Your task to perform on an android device: install app "Paramount+ | Peak Streaming" Image 0: 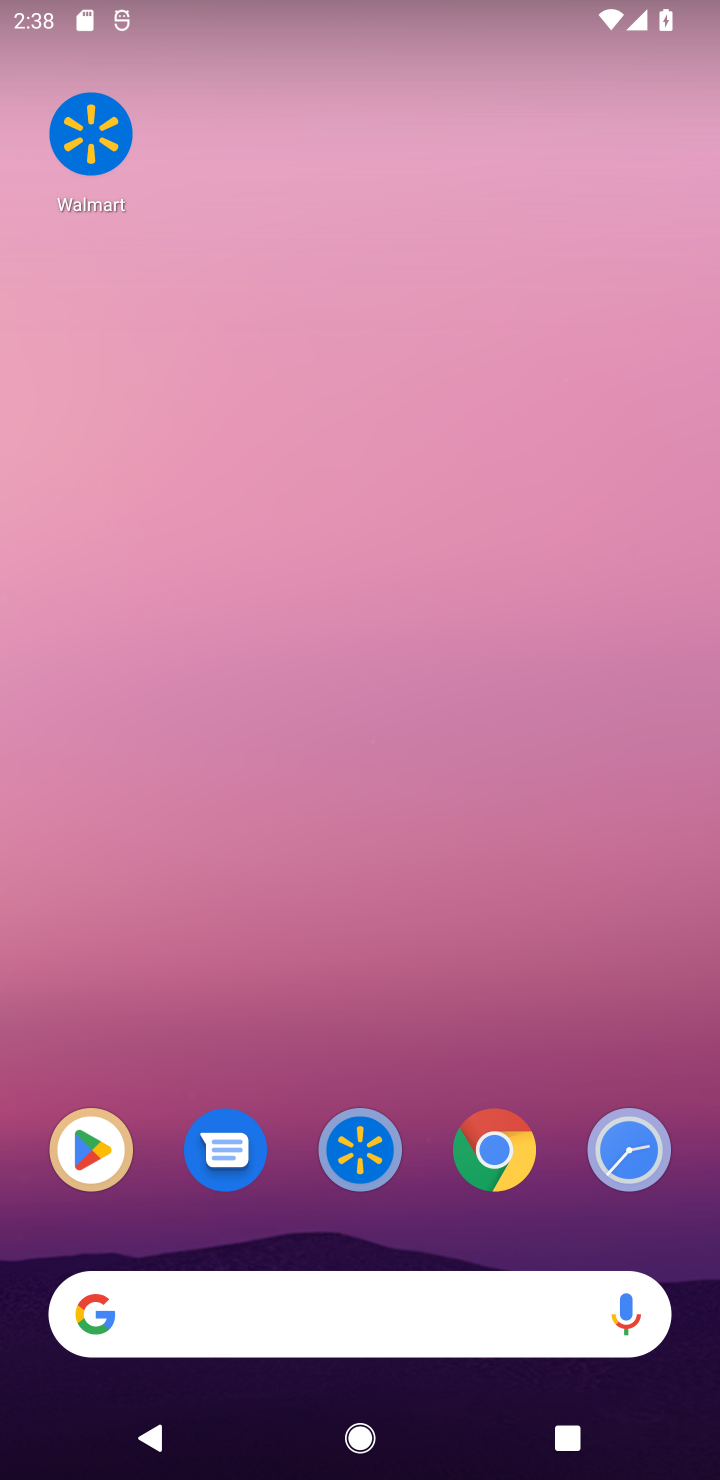
Step 0: drag from (401, 1271) to (393, 105)
Your task to perform on an android device: install app "Paramount+ | Peak Streaming" Image 1: 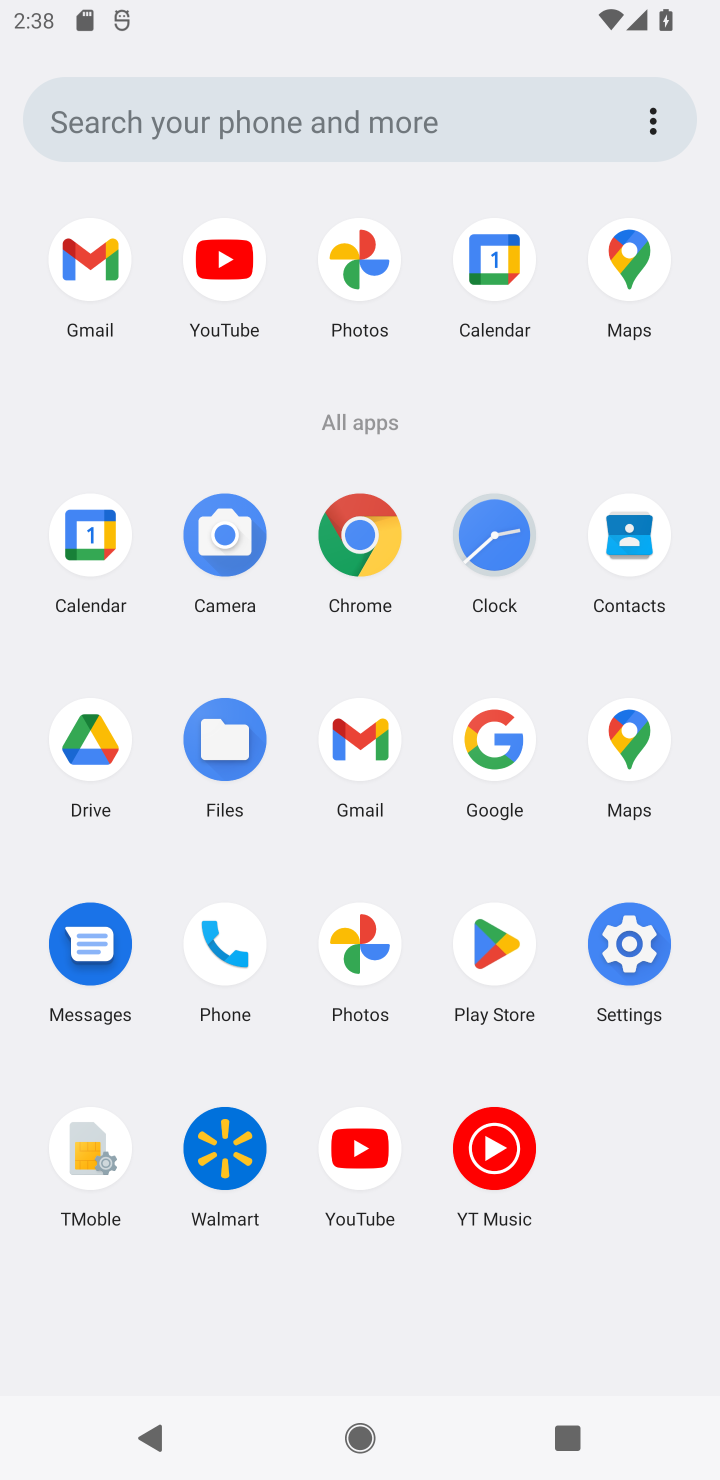
Step 1: click (512, 926)
Your task to perform on an android device: install app "Paramount+ | Peak Streaming" Image 2: 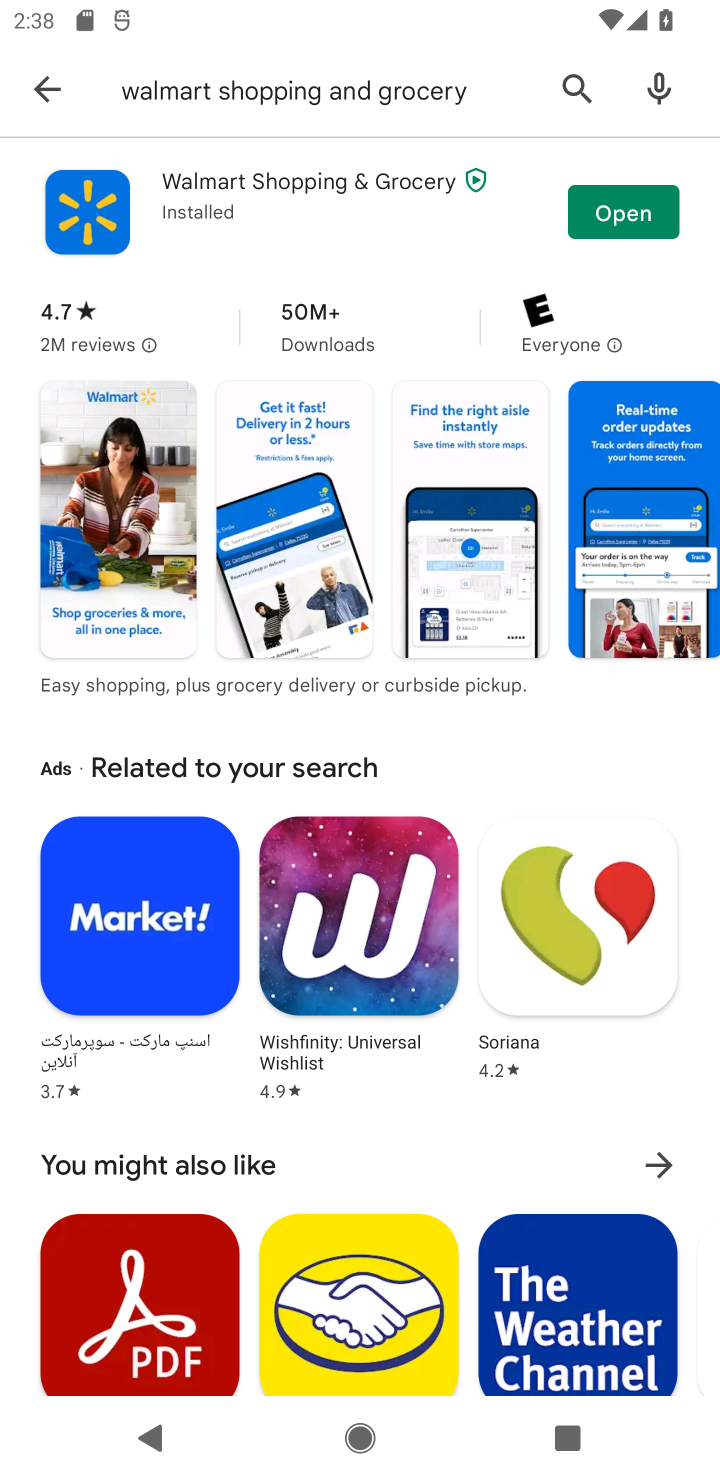
Step 2: click (591, 114)
Your task to perform on an android device: install app "Paramount+ | Peak Streaming" Image 3: 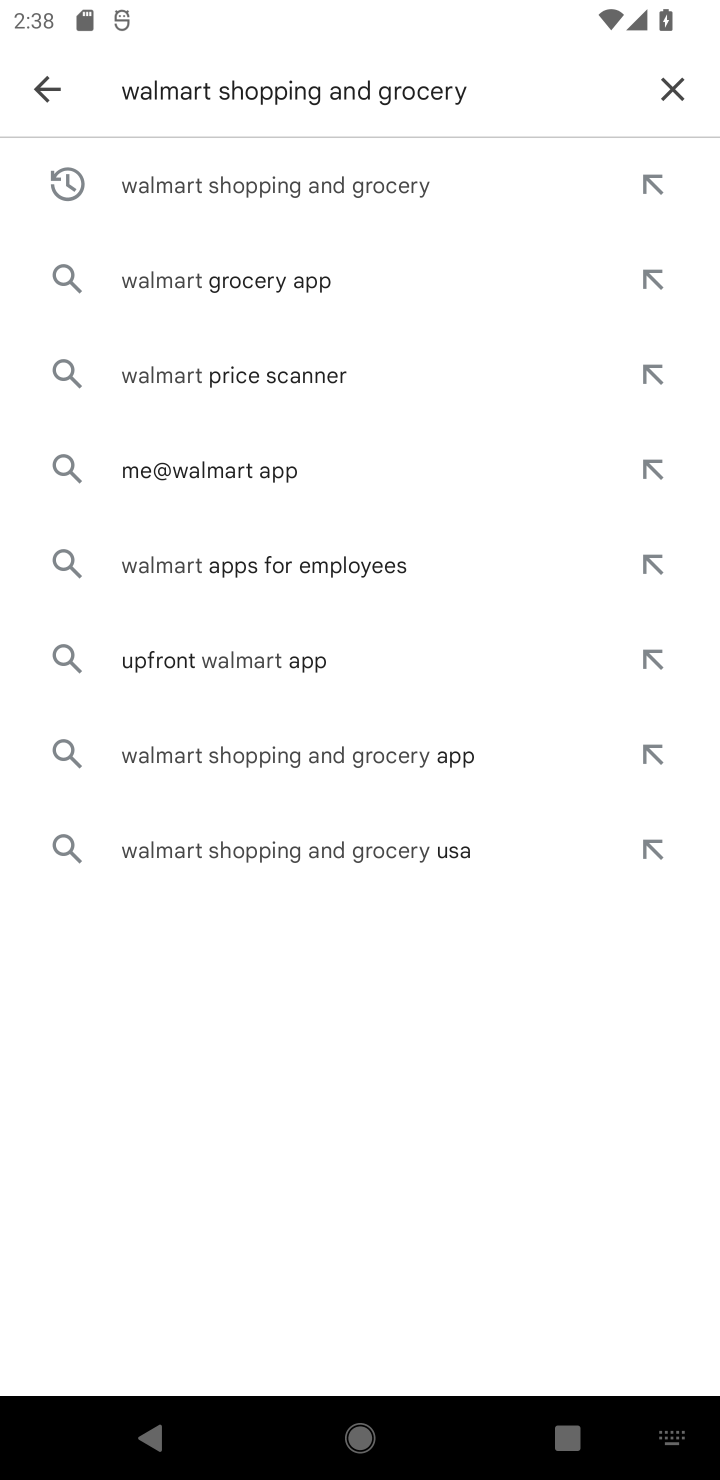
Step 3: click (696, 99)
Your task to perform on an android device: install app "Paramount+ | Peak Streaming" Image 4: 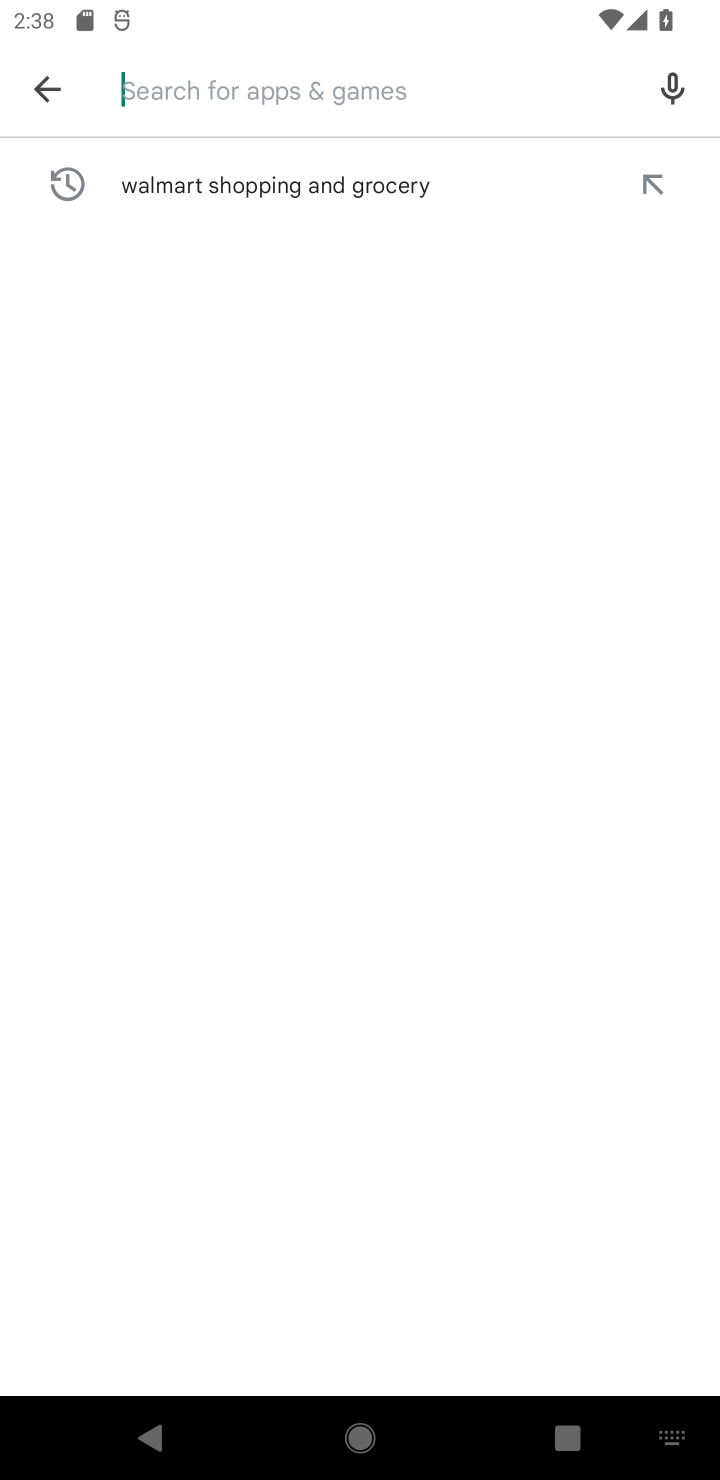
Step 4: type "paramount"
Your task to perform on an android device: install app "Paramount+ | Peak Streaming" Image 5: 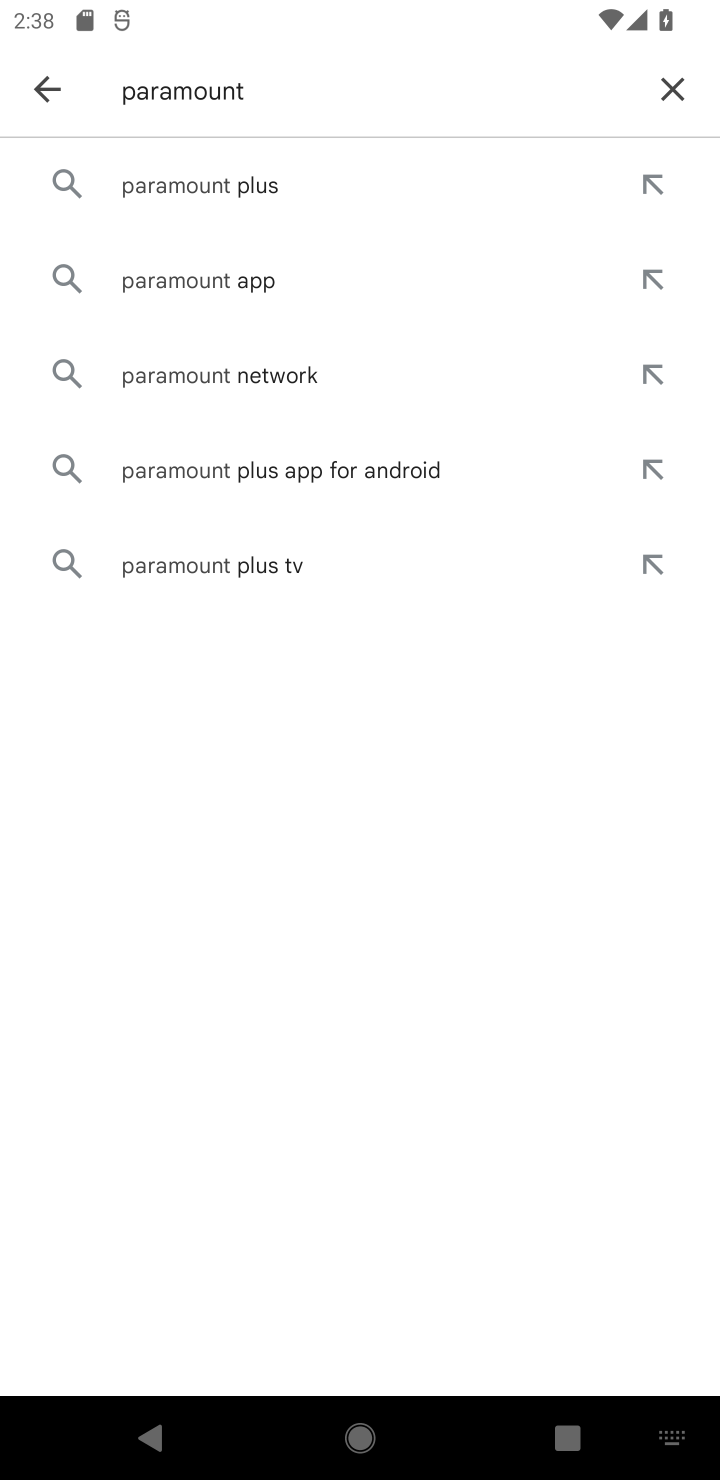
Step 5: click (291, 199)
Your task to perform on an android device: install app "Paramount+ | Peak Streaming" Image 6: 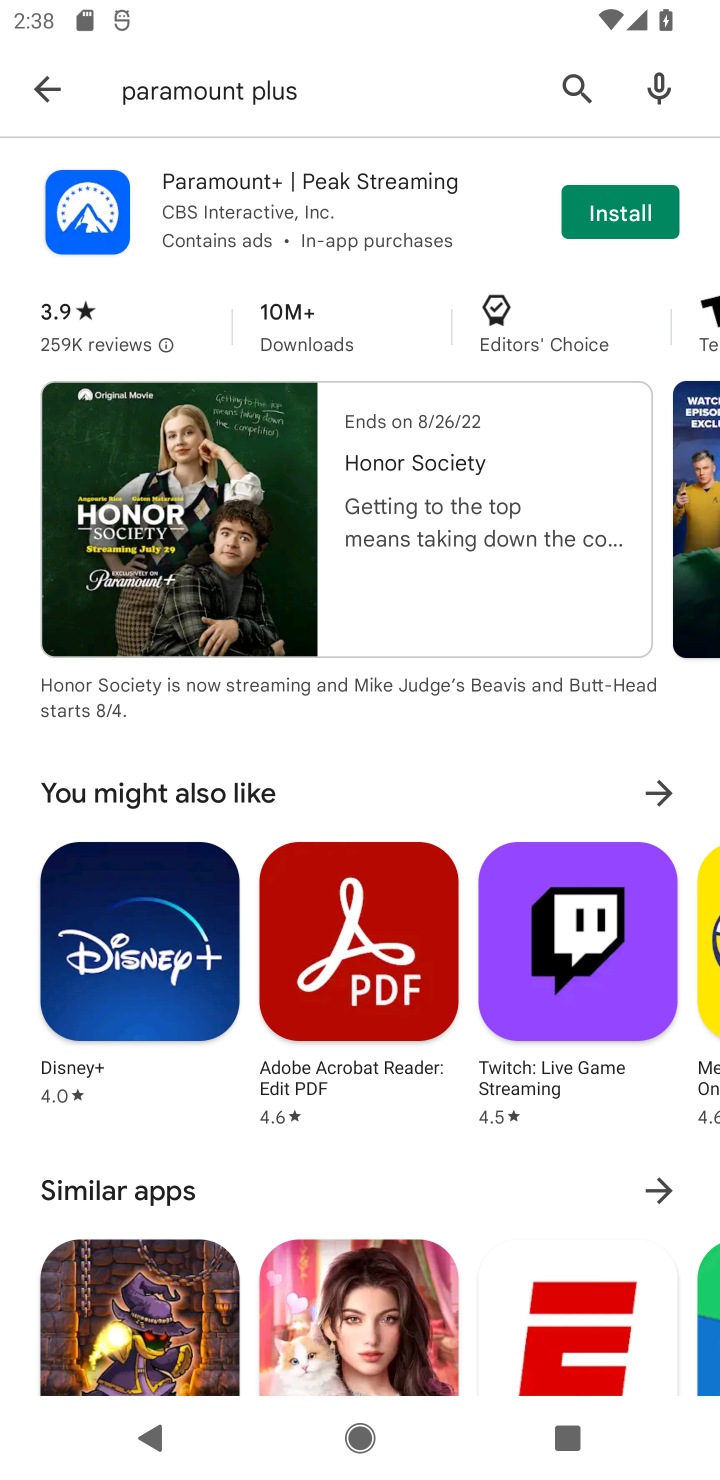
Step 6: click (590, 223)
Your task to perform on an android device: install app "Paramount+ | Peak Streaming" Image 7: 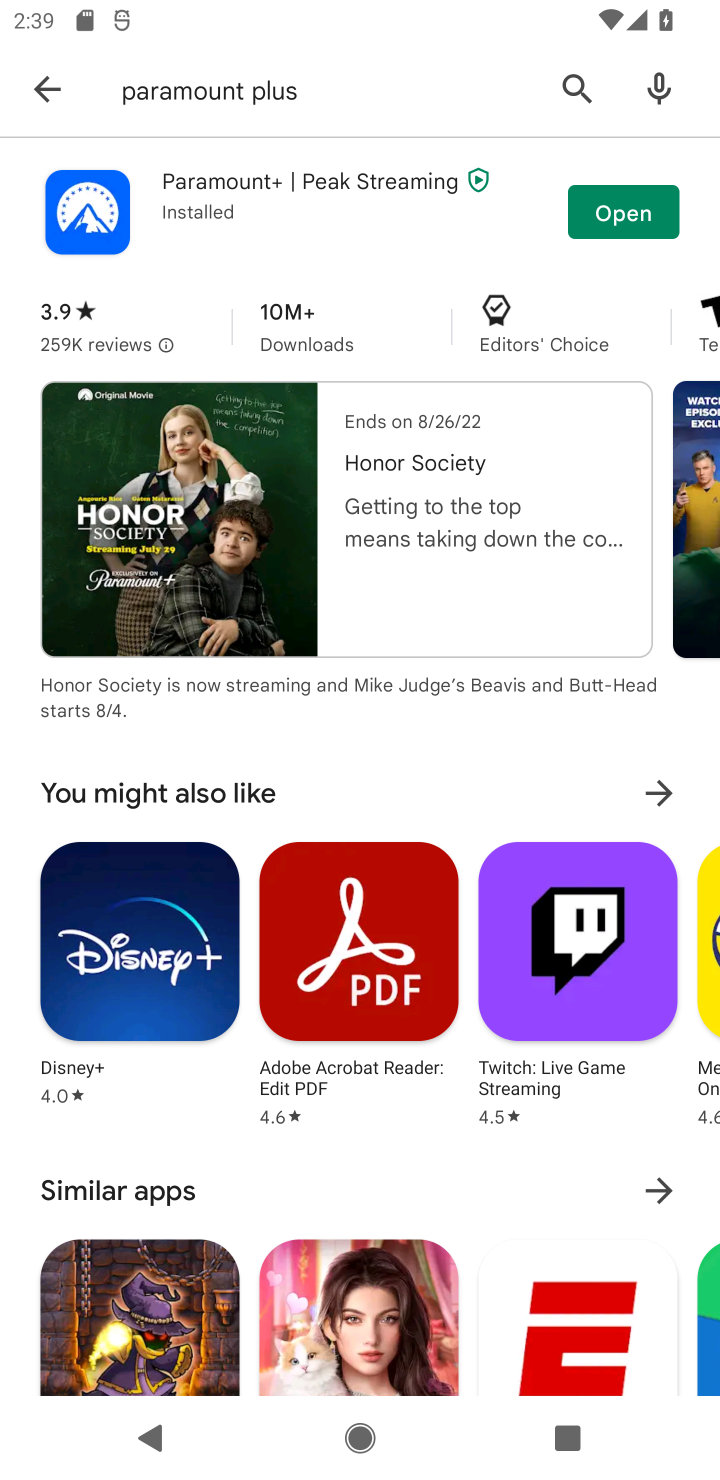
Step 7: task complete